Your task to perform on an android device: turn on javascript in the chrome app Image 0: 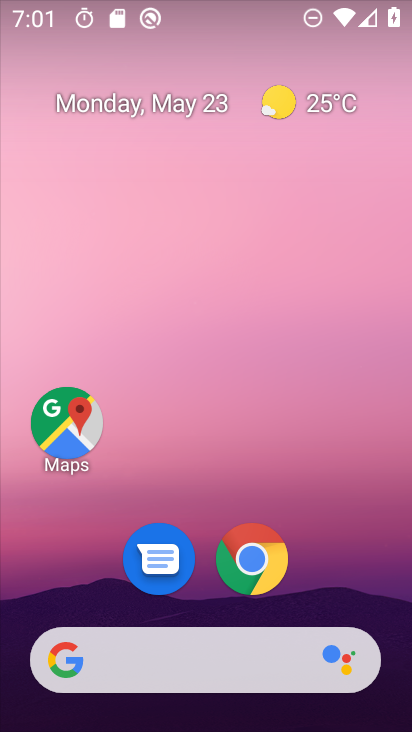
Step 0: drag from (395, 649) to (246, 45)
Your task to perform on an android device: turn on javascript in the chrome app Image 1: 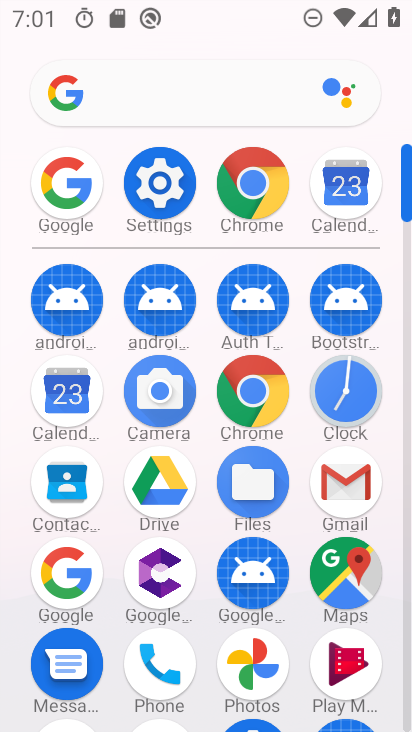
Step 1: click (243, 199)
Your task to perform on an android device: turn on javascript in the chrome app Image 2: 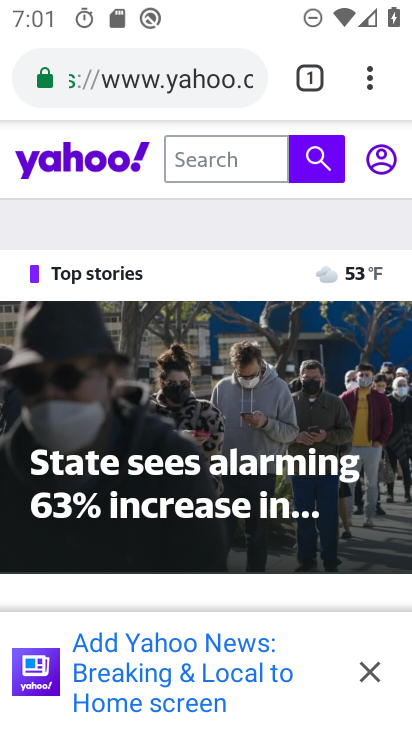
Step 2: press back button
Your task to perform on an android device: turn on javascript in the chrome app Image 3: 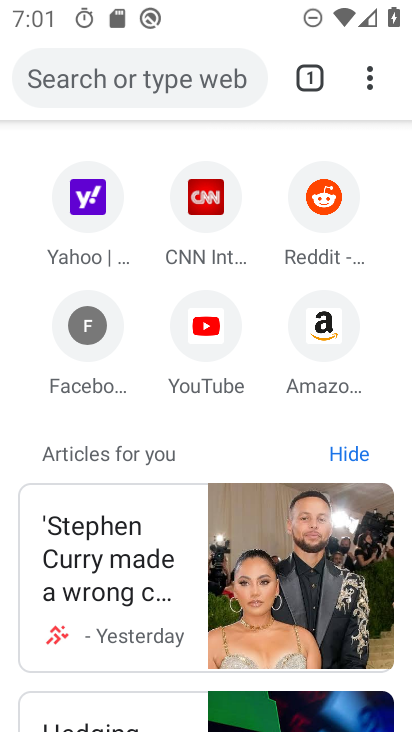
Step 3: click (364, 74)
Your task to perform on an android device: turn on javascript in the chrome app Image 4: 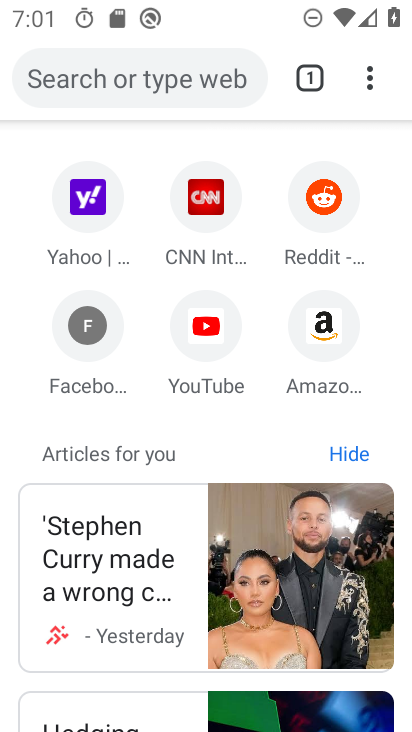
Step 4: click (370, 74)
Your task to perform on an android device: turn on javascript in the chrome app Image 5: 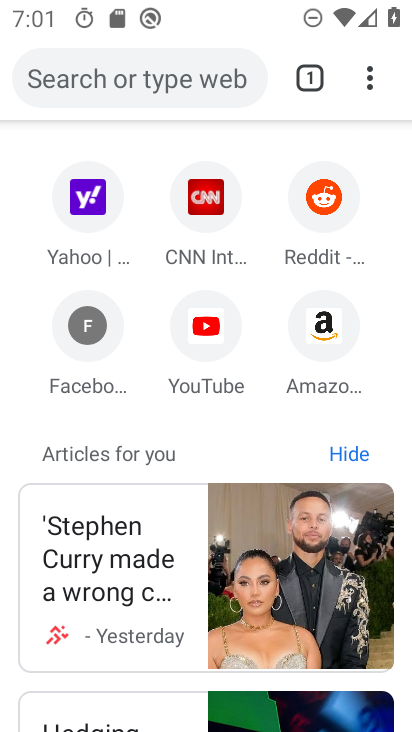
Step 5: click (369, 66)
Your task to perform on an android device: turn on javascript in the chrome app Image 6: 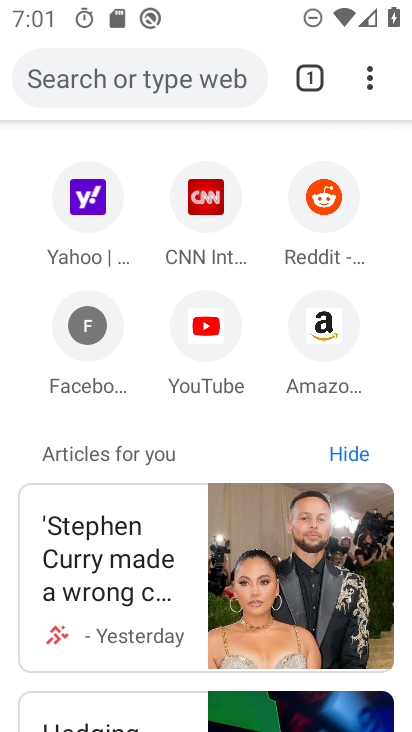
Step 6: click (359, 68)
Your task to perform on an android device: turn on javascript in the chrome app Image 7: 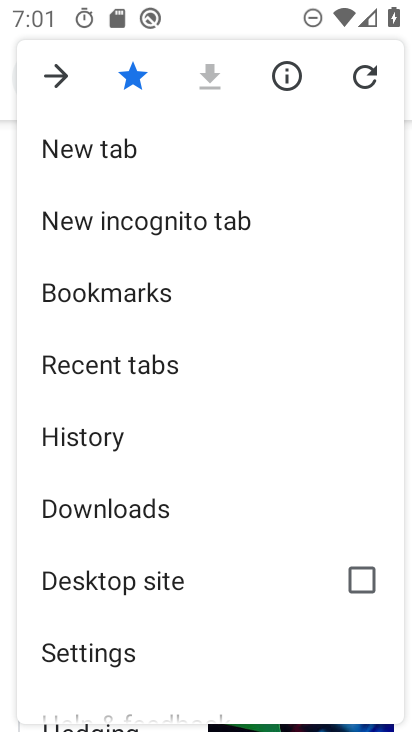
Step 7: click (137, 664)
Your task to perform on an android device: turn on javascript in the chrome app Image 8: 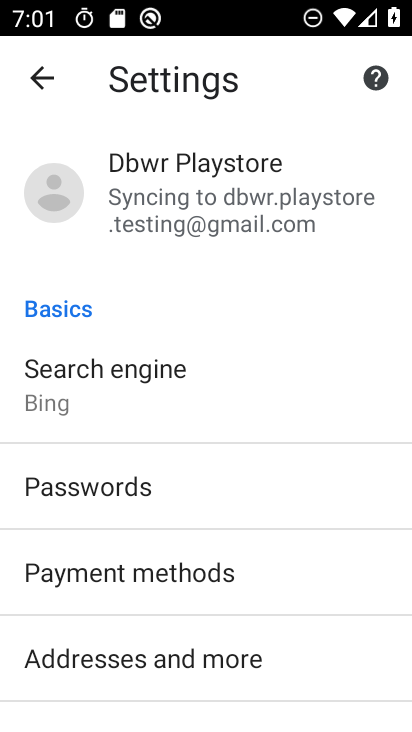
Step 8: drag from (137, 664) to (140, 192)
Your task to perform on an android device: turn on javascript in the chrome app Image 9: 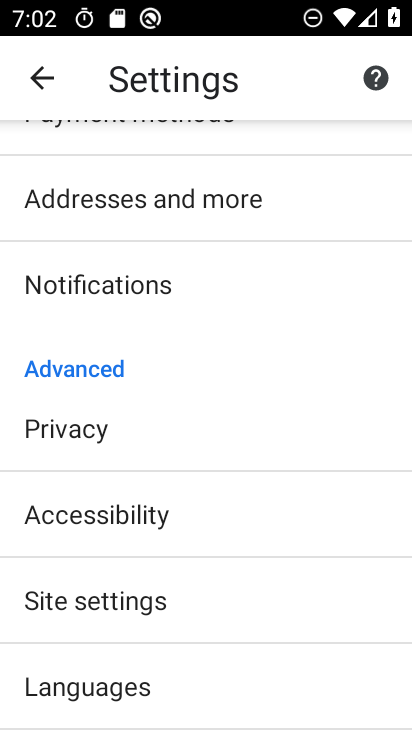
Step 9: click (162, 611)
Your task to perform on an android device: turn on javascript in the chrome app Image 10: 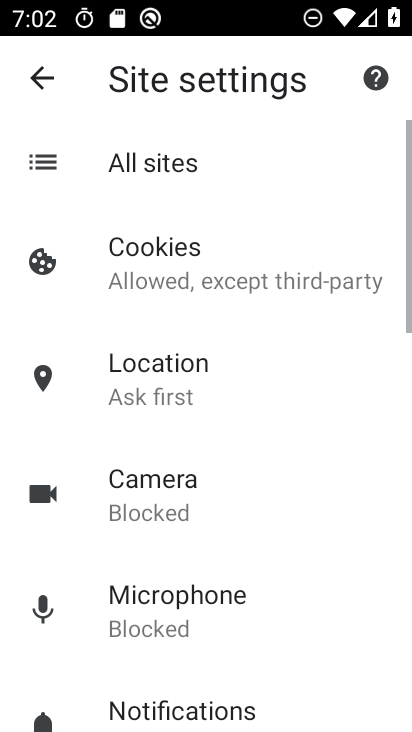
Step 10: drag from (161, 612) to (156, 246)
Your task to perform on an android device: turn on javascript in the chrome app Image 11: 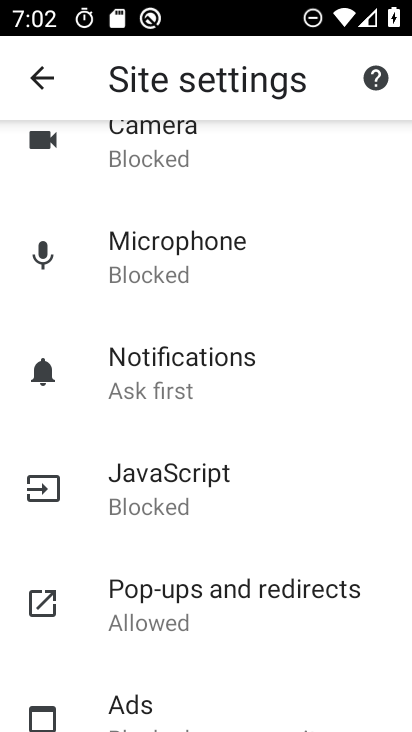
Step 11: click (195, 475)
Your task to perform on an android device: turn on javascript in the chrome app Image 12: 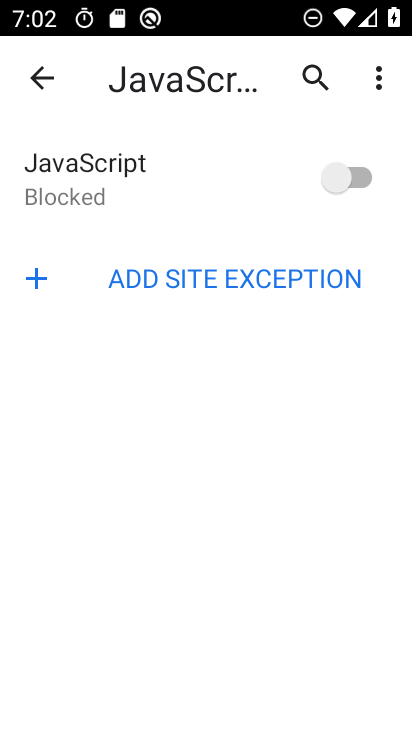
Step 12: click (350, 184)
Your task to perform on an android device: turn on javascript in the chrome app Image 13: 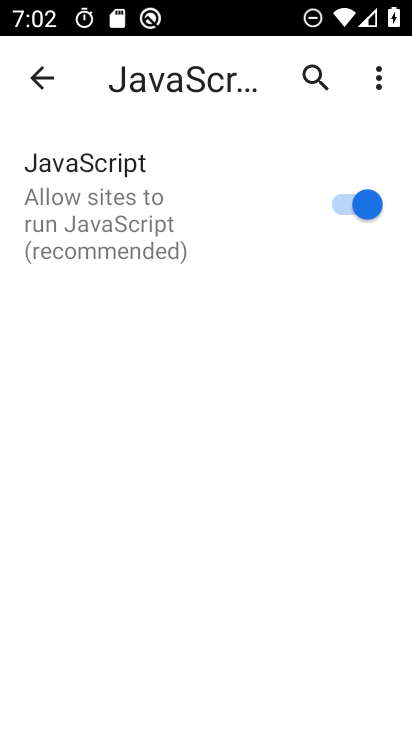
Step 13: task complete